Your task to perform on an android device: set the timer Image 0: 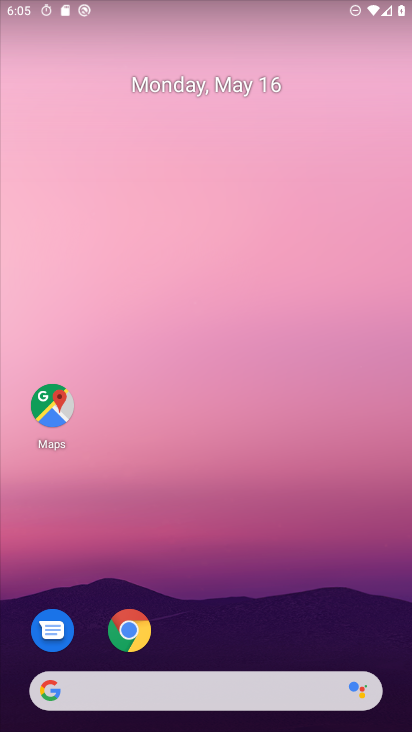
Step 0: drag from (256, 641) to (319, 224)
Your task to perform on an android device: set the timer Image 1: 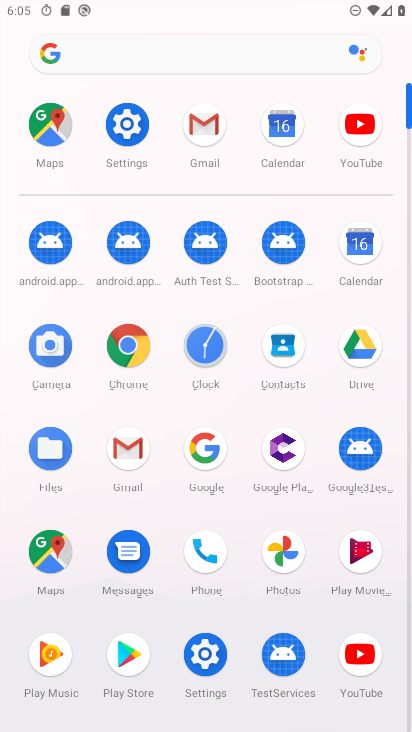
Step 1: click (208, 342)
Your task to perform on an android device: set the timer Image 2: 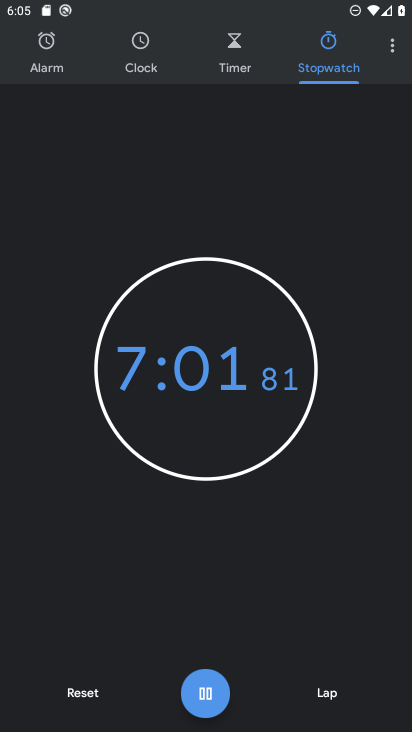
Step 2: click (245, 56)
Your task to perform on an android device: set the timer Image 3: 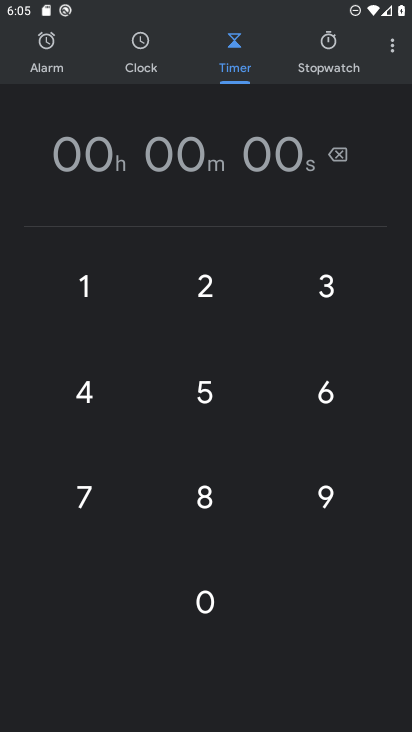
Step 3: click (205, 497)
Your task to perform on an android device: set the timer Image 4: 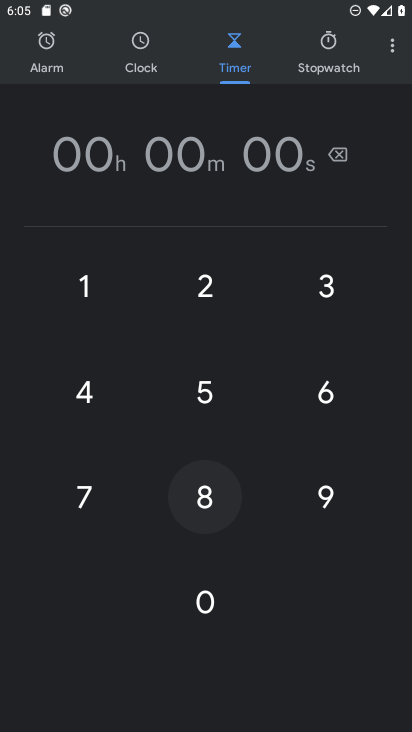
Step 4: click (205, 497)
Your task to perform on an android device: set the timer Image 5: 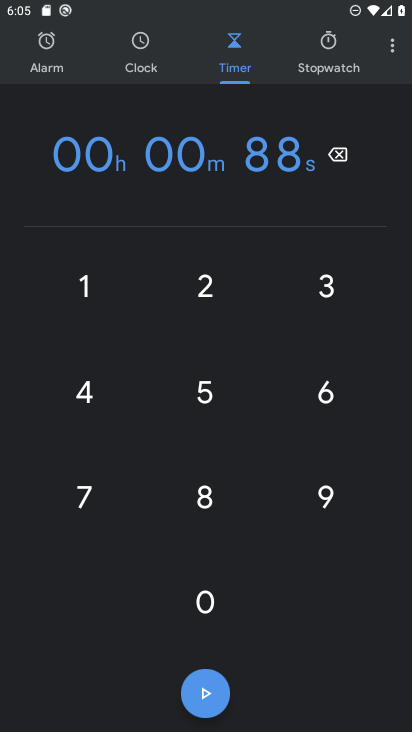
Step 5: click (206, 387)
Your task to perform on an android device: set the timer Image 6: 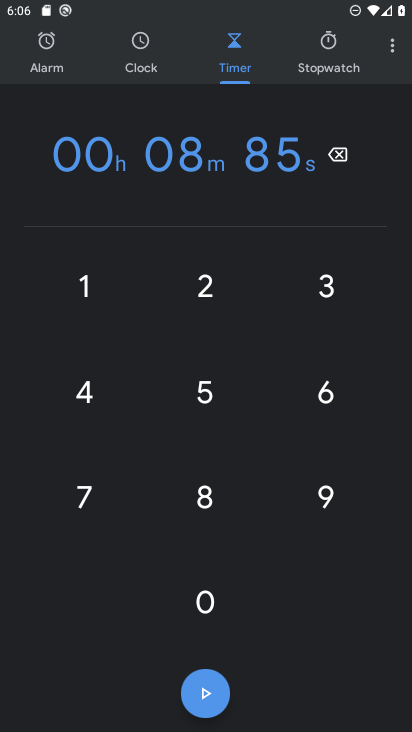
Step 6: click (198, 690)
Your task to perform on an android device: set the timer Image 7: 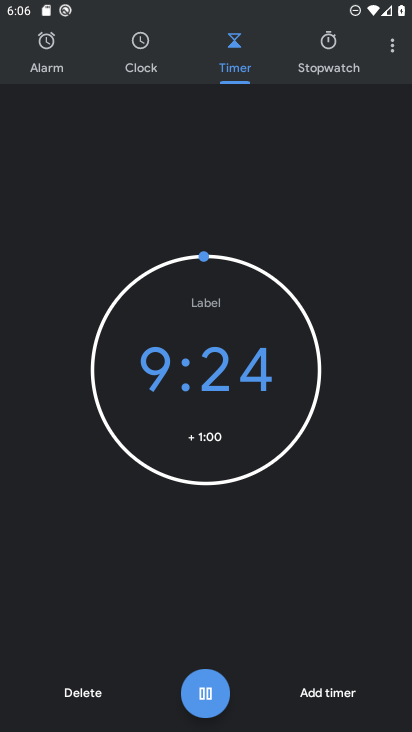
Step 7: task complete